Your task to perform on an android device: turn off notifications settings in the gmail app Image 0: 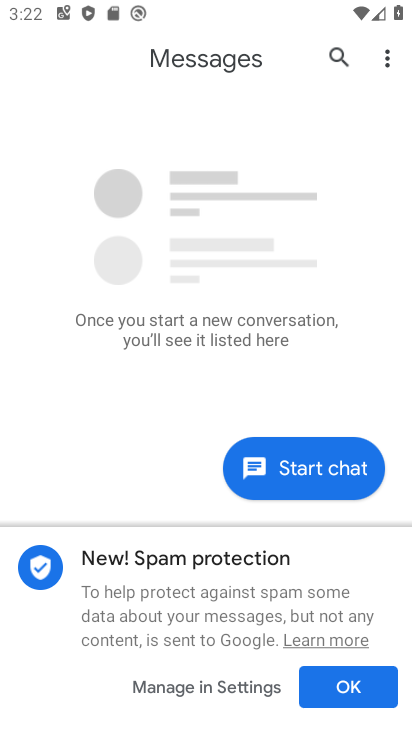
Step 0: press home button
Your task to perform on an android device: turn off notifications settings in the gmail app Image 1: 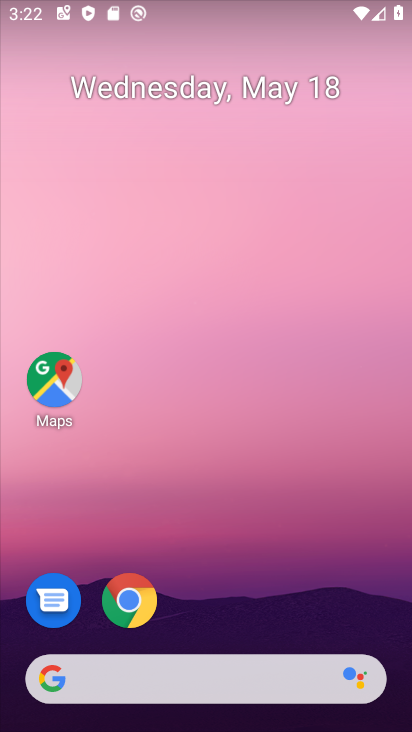
Step 1: drag from (214, 609) to (213, 300)
Your task to perform on an android device: turn off notifications settings in the gmail app Image 2: 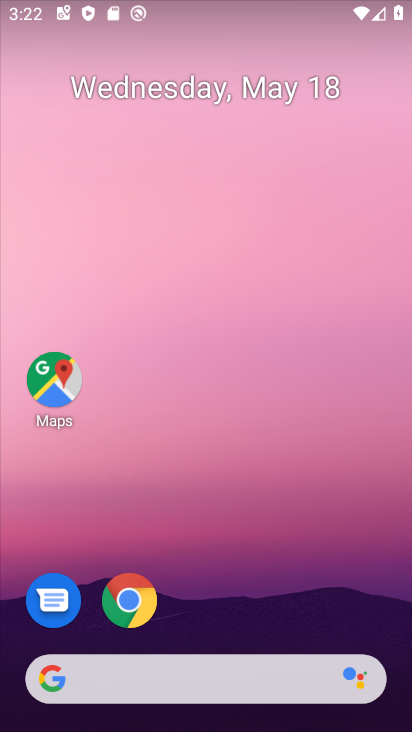
Step 2: drag from (221, 625) to (207, 206)
Your task to perform on an android device: turn off notifications settings in the gmail app Image 3: 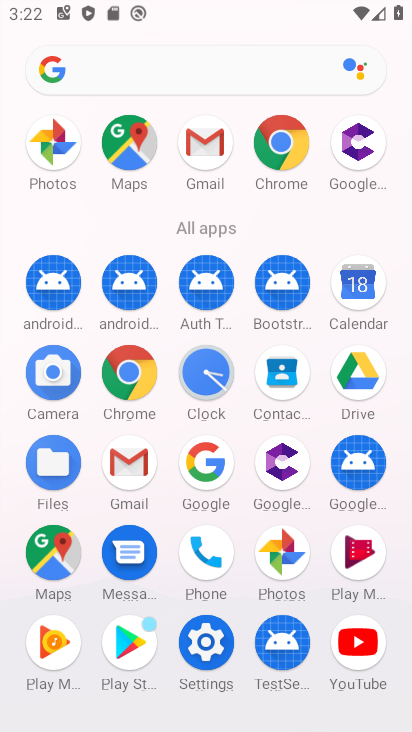
Step 3: click (206, 154)
Your task to perform on an android device: turn off notifications settings in the gmail app Image 4: 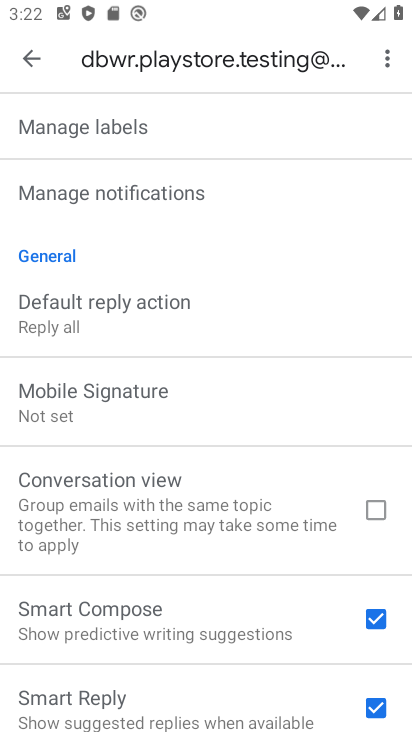
Step 4: click (160, 194)
Your task to perform on an android device: turn off notifications settings in the gmail app Image 5: 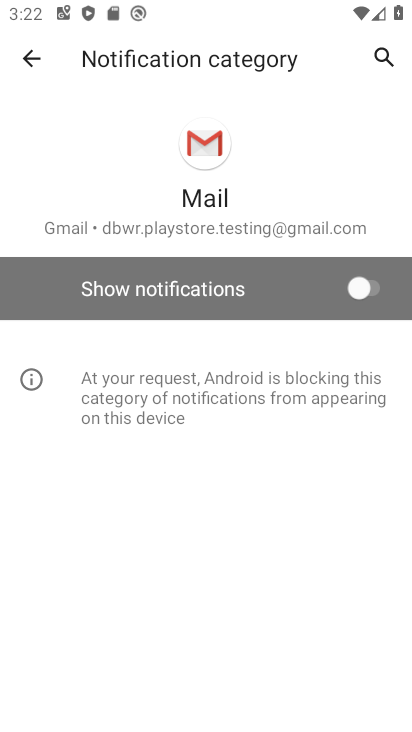
Step 5: task complete